Your task to perform on an android device: How big is the universe? Image 0: 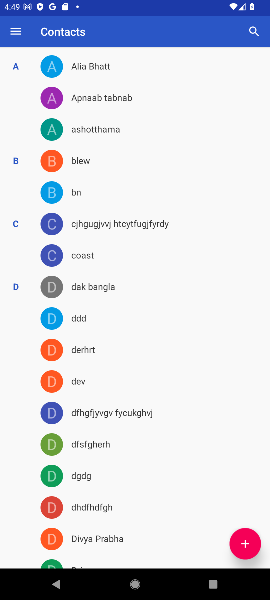
Step 0: press home button
Your task to perform on an android device: How big is the universe? Image 1: 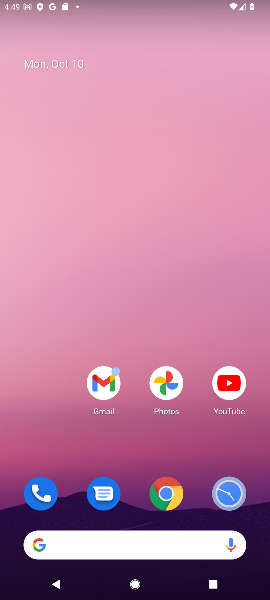
Step 1: click (153, 547)
Your task to perform on an android device: How big is the universe? Image 2: 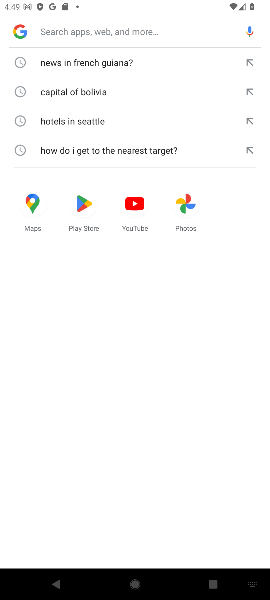
Step 2: type "How big is the universe?"
Your task to perform on an android device: How big is the universe? Image 3: 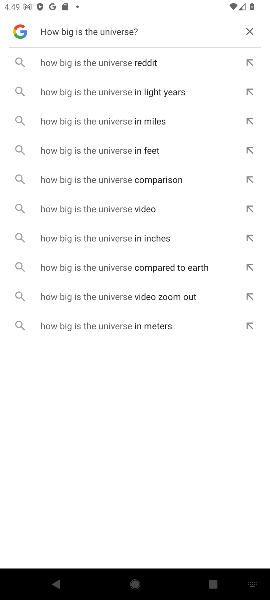
Step 3: click (130, 68)
Your task to perform on an android device: How big is the universe? Image 4: 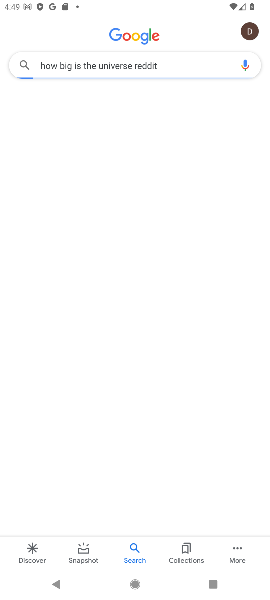
Step 4: task complete